Your task to perform on an android device: toggle wifi Image 0: 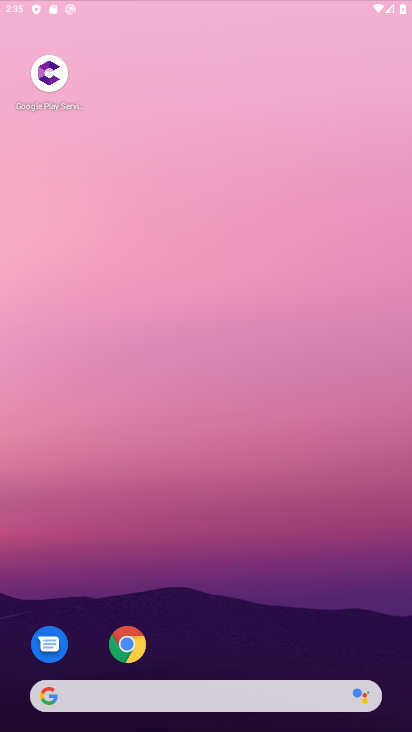
Step 0: click (220, 291)
Your task to perform on an android device: toggle wifi Image 1: 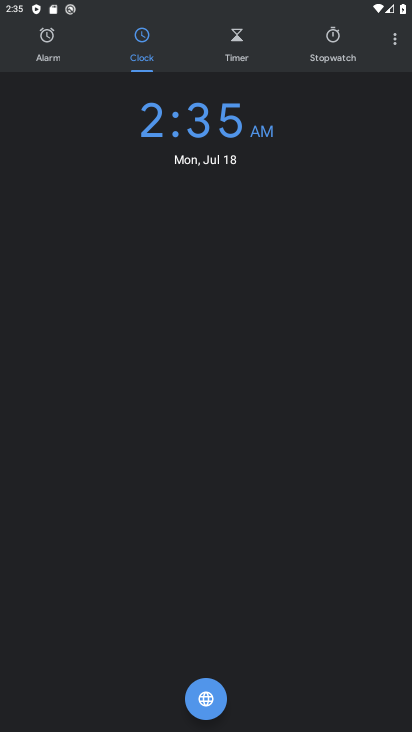
Step 1: press home button
Your task to perform on an android device: toggle wifi Image 2: 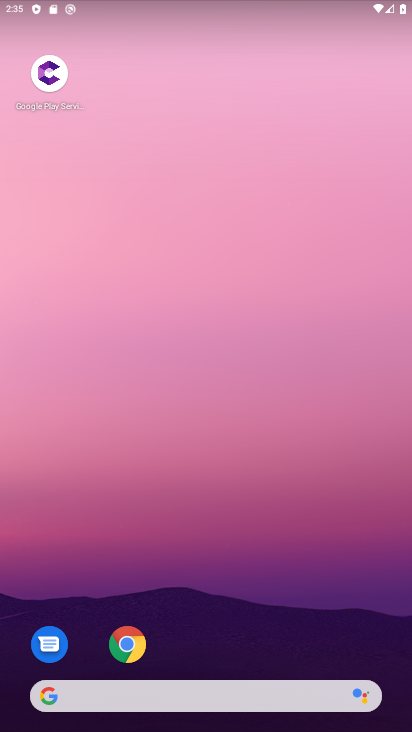
Step 2: drag from (185, 682) to (192, 114)
Your task to perform on an android device: toggle wifi Image 3: 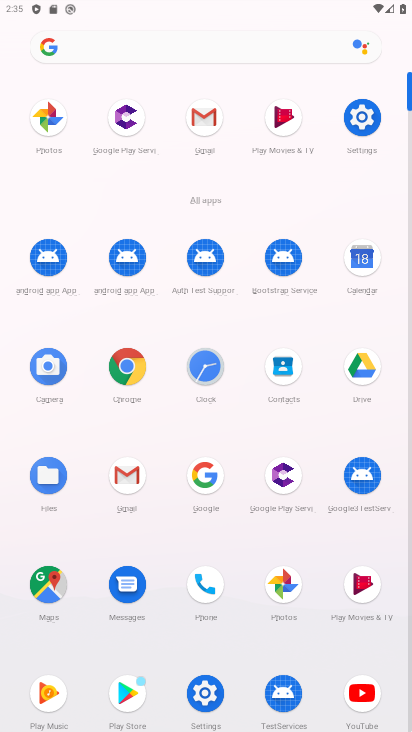
Step 3: click (362, 128)
Your task to perform on an android device: toggle wifi Image 4: 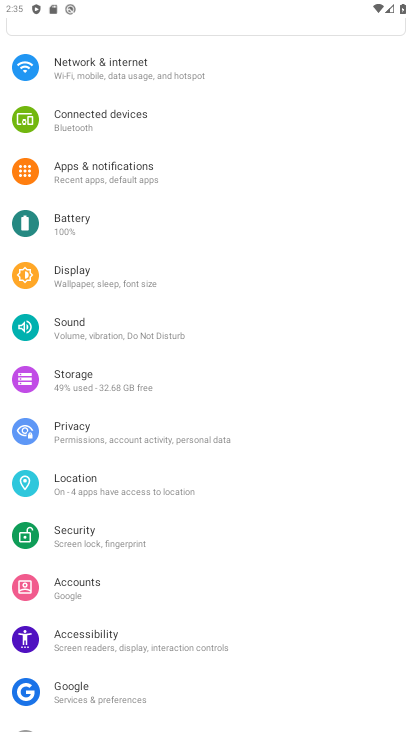
Step 4: click (91, 75)
Your task to perform on an android device: toggle wifi Image 5: 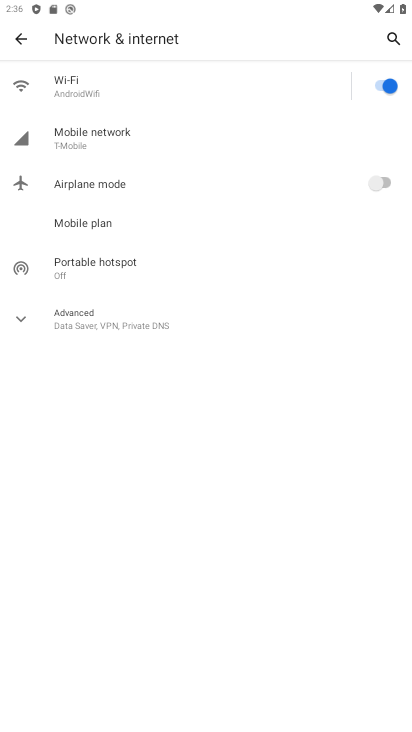
Step 5: click (386, 85)
Your task to perform on an android device: toggle wifi Image 6: 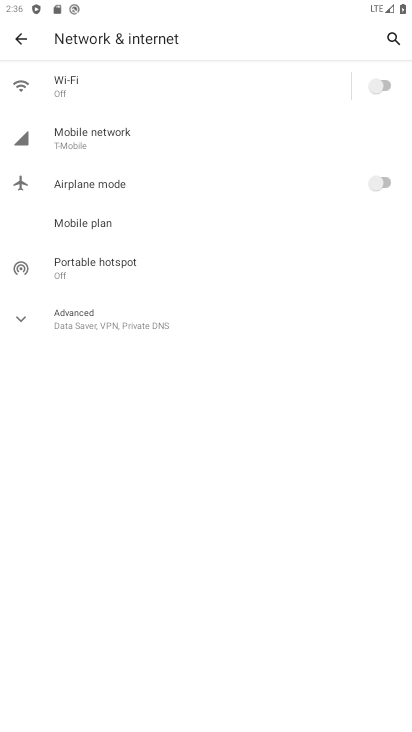
Step 6: task complete